Your task to perform on an android device: change text size in settings app Image 0: 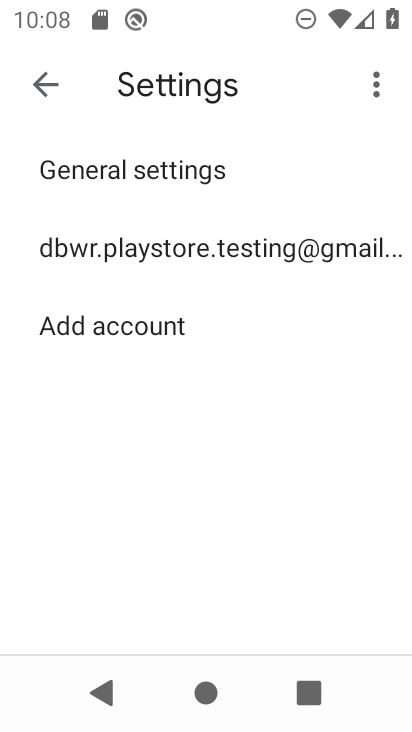
Step 0: press home button
Your task to perform on an android device: change text size in settings app Image 1: 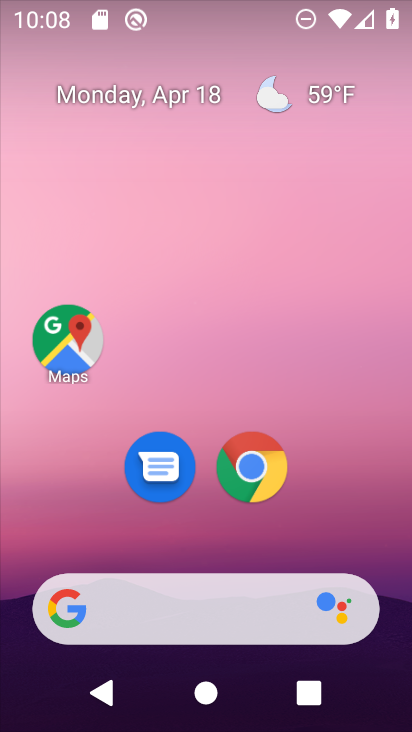
Step 1: drag from (221, 393) to (287, 2)
Your task to perform on an android device: change text size in settings app Image 2: 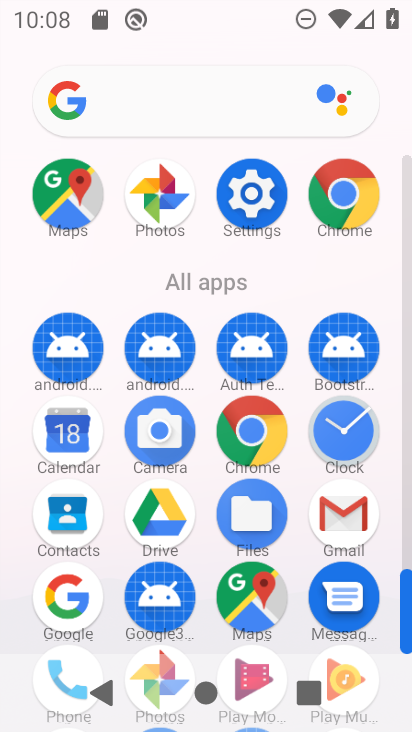
Step 2: click (246, 192)
Your task to perform on an android device: change text size in settings app Image 3: 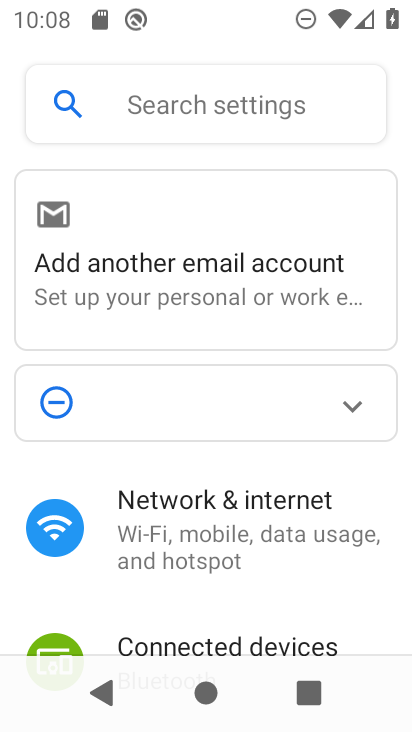
Step 3: click (193, 115)
Your task to perform on an android device: change text size in settings app Image 4: 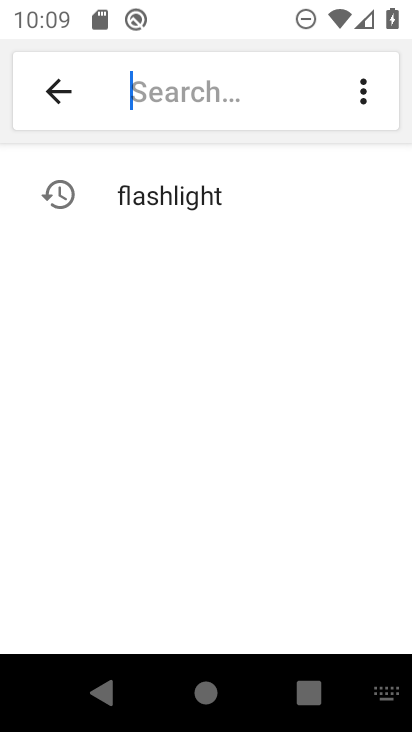
Step 4: type "text size"
Your task to perform on an android device: change text size in settings app Image 5: 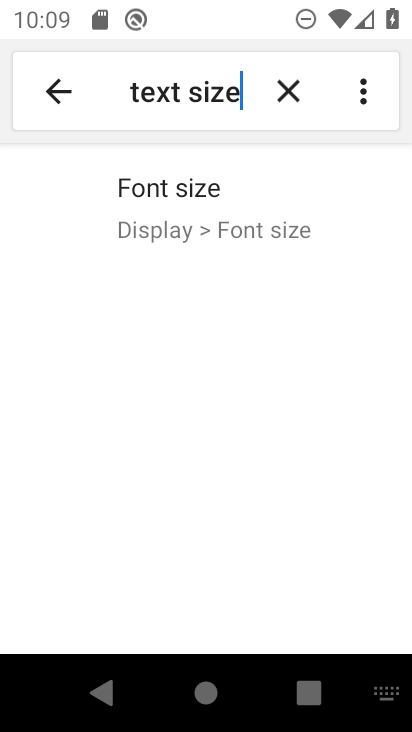
Step 5: click (188, 199)
Your task to perform on an android device: change text size in settings app Image 6: 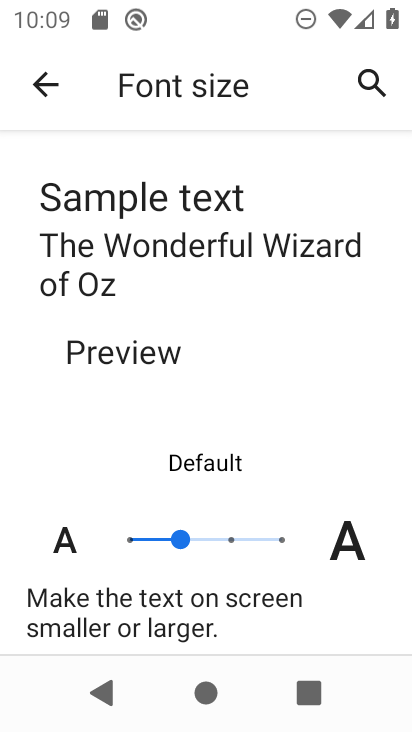
Step 6: task complete